Your task to perform on an android device: Open the calendar and show me this week's events? Image 0: 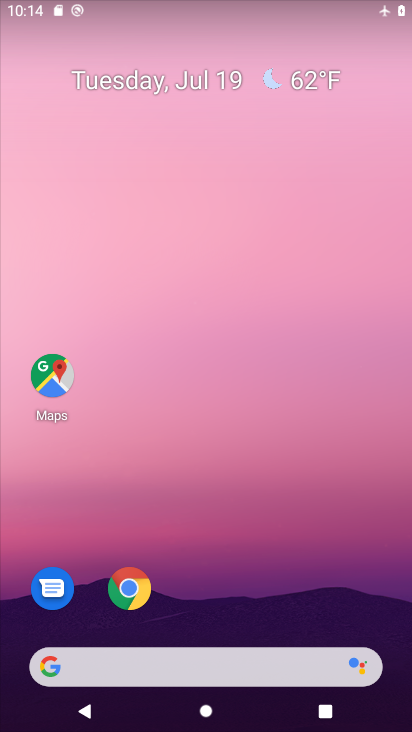
Step 0: drag from (175, 590) to (176, 248)
Your task to perform on an android device: Open the calendar and show me this week's events? Image 1: 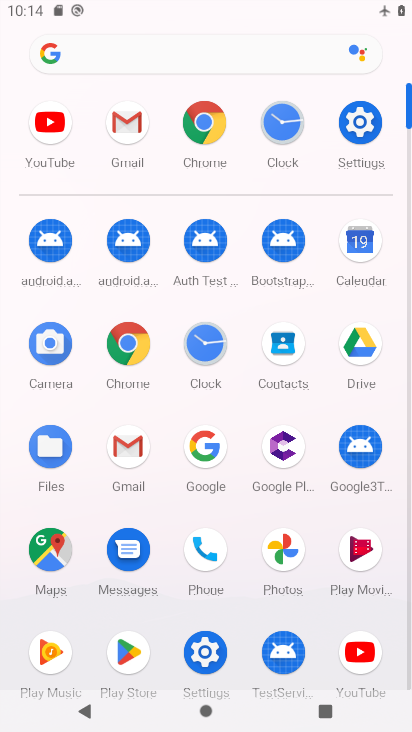
Step 1: click (365, 274)
Your task to perform on an android device: Open the calendar and show me this week's events? Image 2: 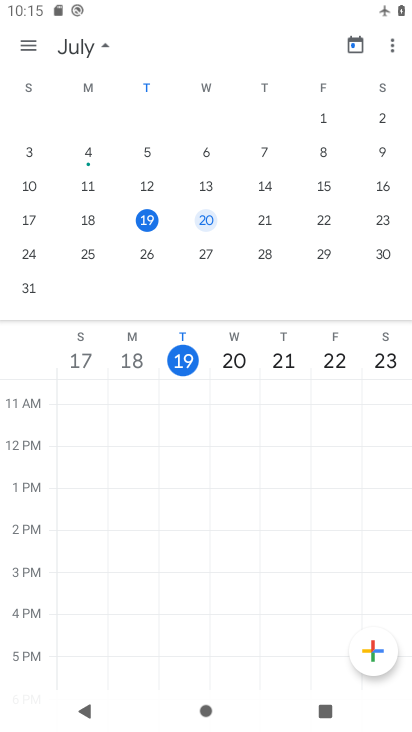
Step 2: task complete